Your task to perform on an android device: turn on javascript in the chrome app Image 0: 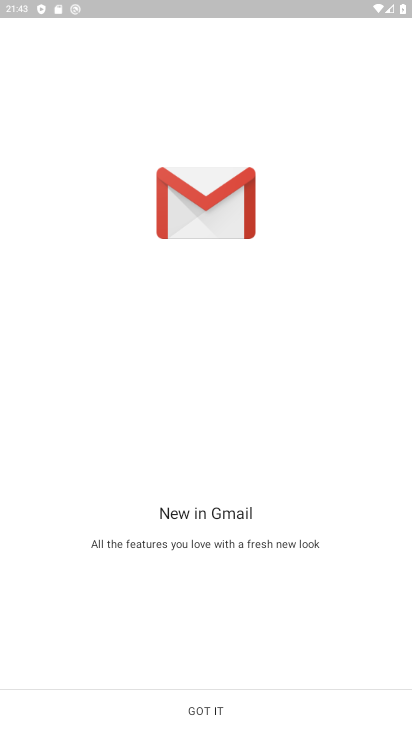
Step 0: press home button
Your task to perform on an android device: turn on javascript in the chrome app Image 1: 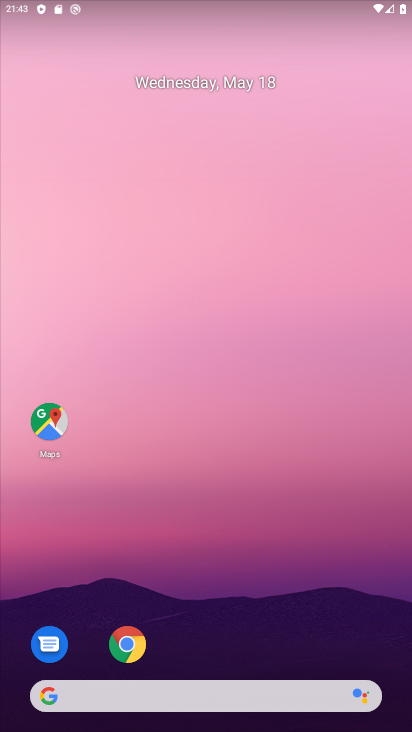
Step 1: click (124, 646)
Your task to perform on an android device: turn on javascript in the chrome app Image 2: 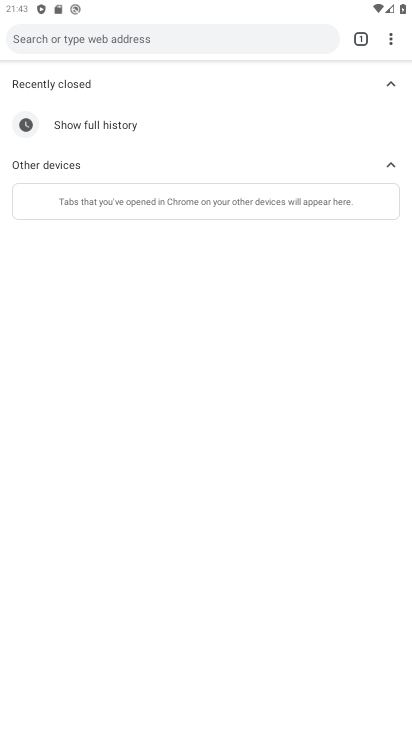
Step 2: click (393, 45)
Your task to perform on an android device: turn on javascript in the chrome app Image 3: 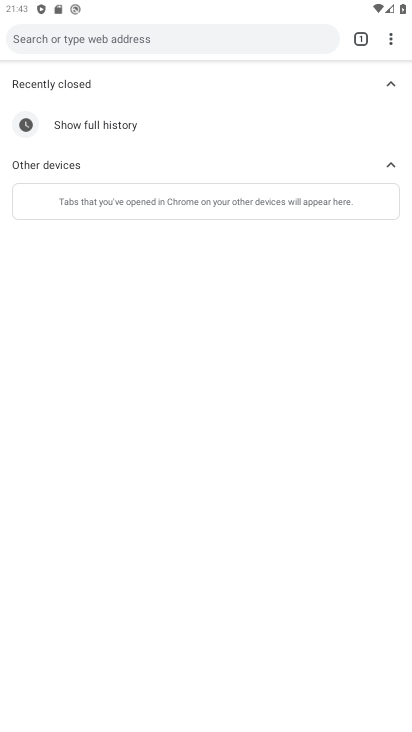
Step 3: drag from (393, 45) to (252, 322)
Your task to perform on an android device: turn on javascript in the chrome app Image 4: 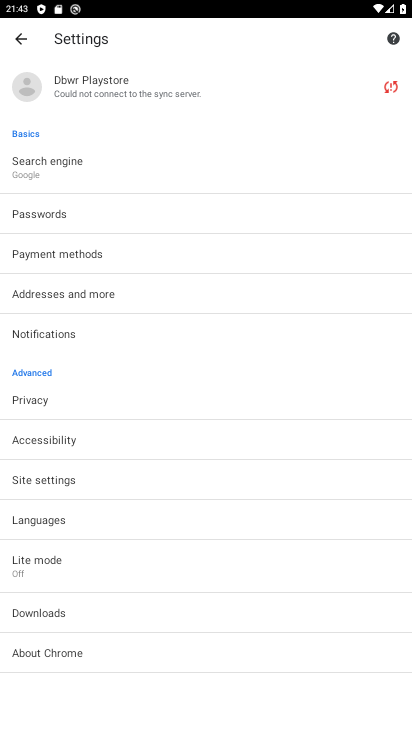
Step 4: drag from (123, 625) to (215, 304)
Your task to perform on an android device: turn on javascript in the chrome app Image 5: 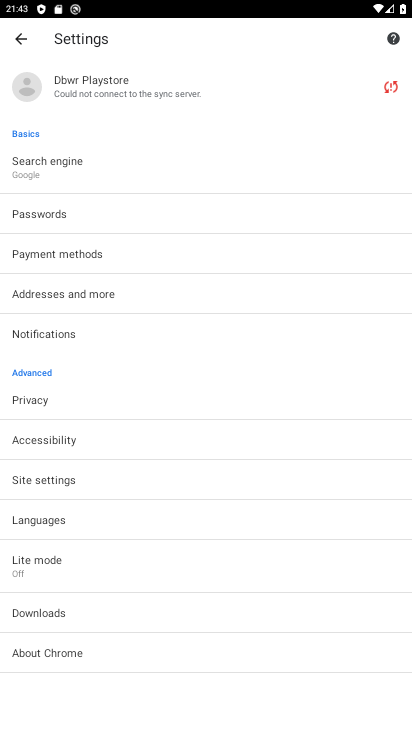
Step 5: click (69, 476)
Your task to perform on an android device: turn on javascript in the chrome app Image 6: 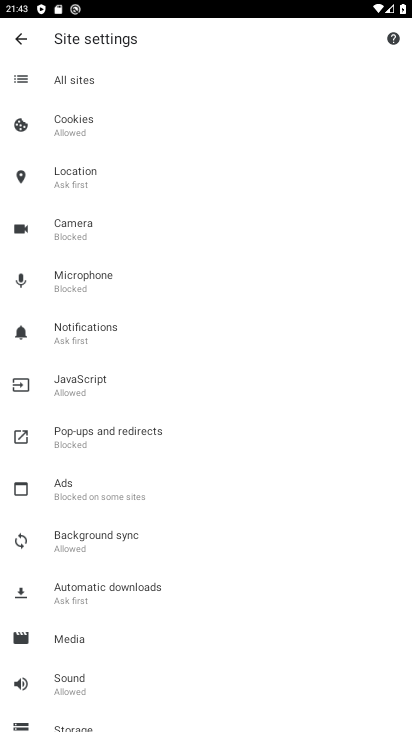
Step 6: click (98, 390)
Your task to perform on an android device: turn on javascript in the chrome app Image 7: 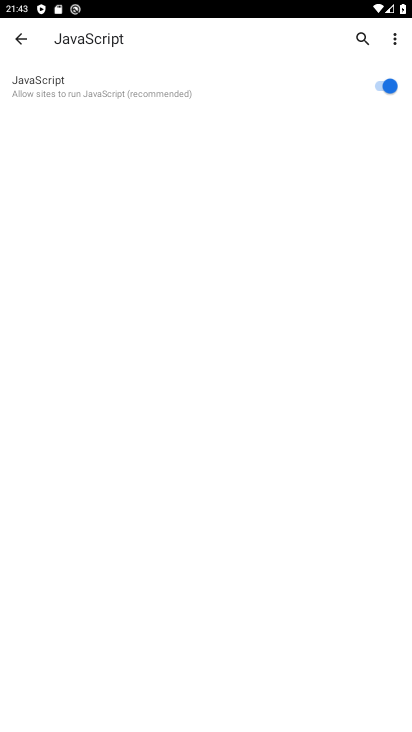
Step 7: task complete